Your task to perform on an android device: Find coffee shops on Maps Image 0: 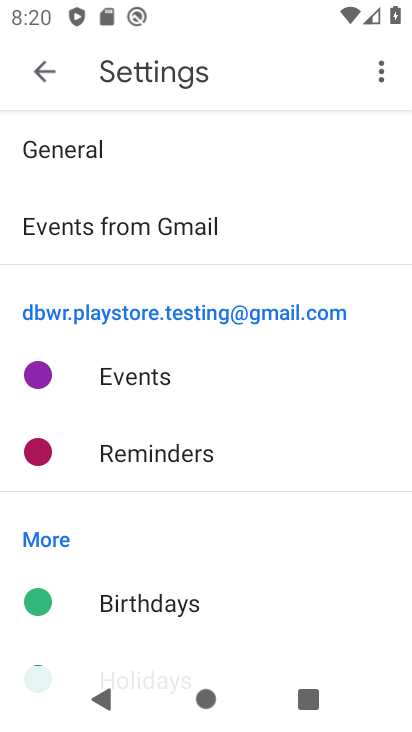
Step 0: press home button
Your task to perform on an android device: Find coffee shops on Maps Image 1: 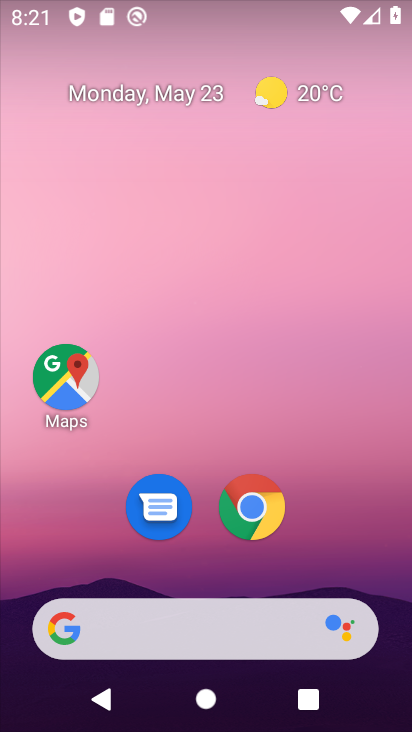
Step 1: click (73, 383)
Your task to perform on an android device: Find coffee shops on Maps Image 2: 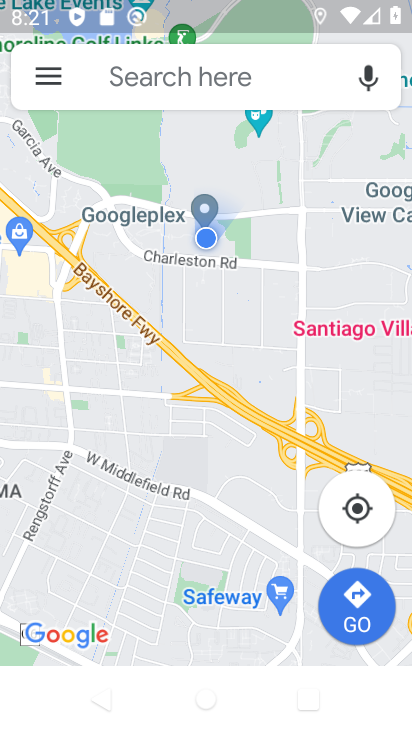
Step 2: click (121, 74)
Your task to perform on an android device: Find coffee shops on Maps Image 3: 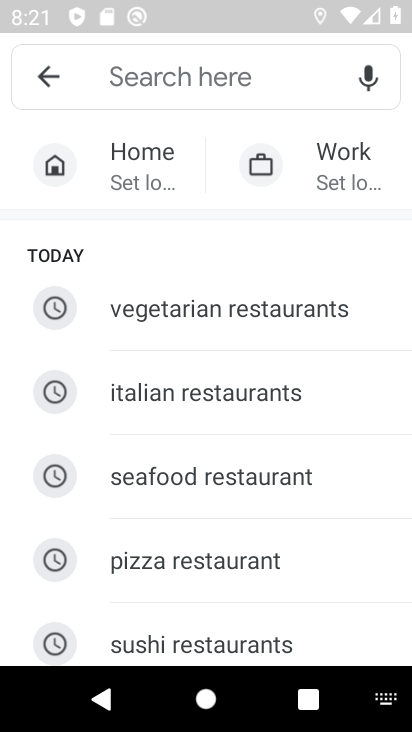
Step 3: type "coffee shops"
Your task to perform on an android device: Find coffee shops on Maps Image 4: 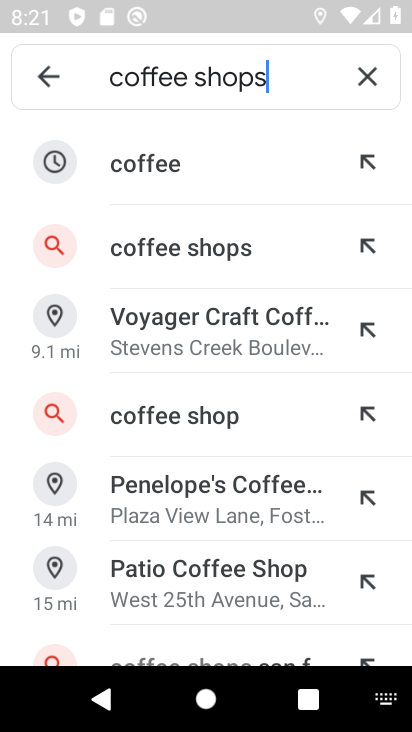
Step 4: click (182, 245)
Your task to perform on an android device: Find coffee shops on Maps Image 5: 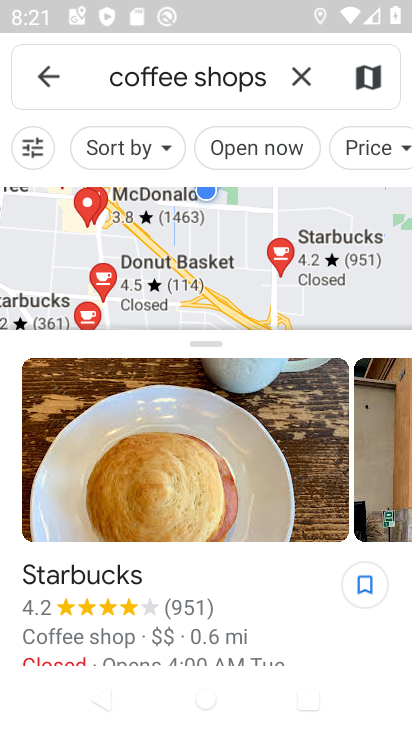
Step 5: task complete